Your task to perform on an android device: Open Google Maps and go to "Timeline" Image 0: 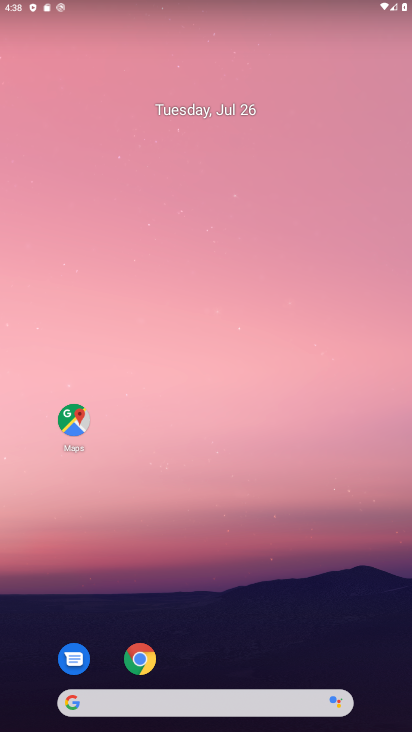
Step 0: drag from (221, 585) to (321, 8)
Your task to perform on an android device: Open Google Maps and go to "Timeline" Image 1: 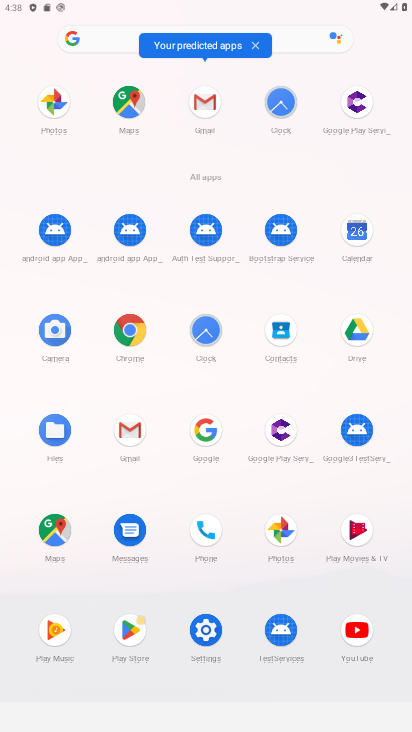
Step 1: click (53, 535)
Your task to perform on an android device: Open Google Maps and go to "Timeline" Image 2: 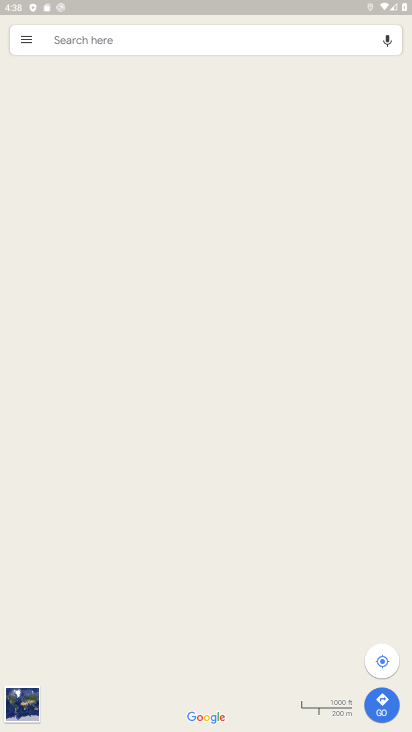
Step 2: click (25, 30)
Your task to perform on an android device: Open Google Maps and go to "Timeline" Image 3: 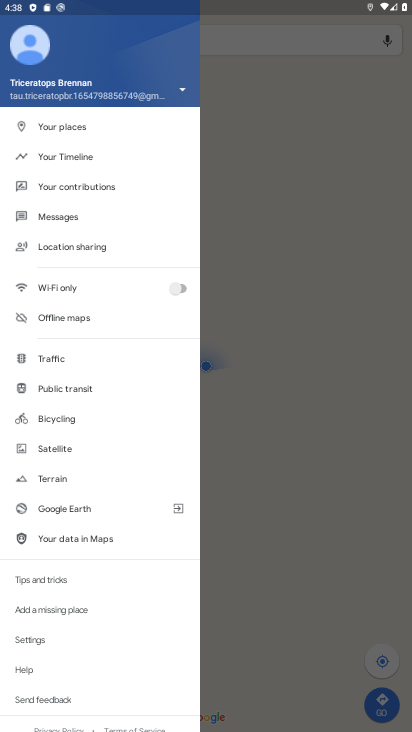
Step 3: click (80, 155)
Your task to perform on an android device: Open Google Maps and go to "Timeline" Image 4: 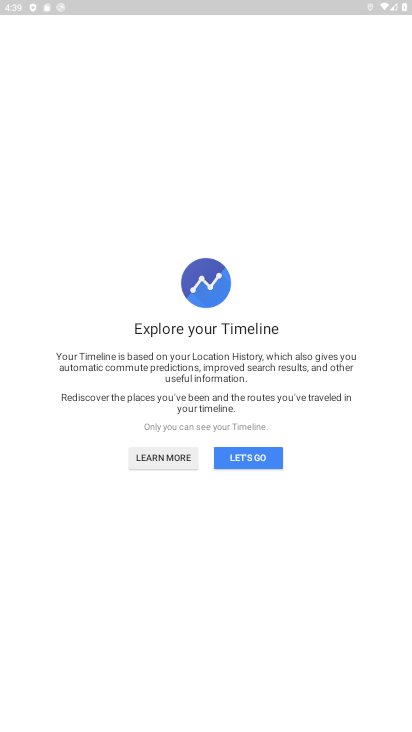
Step 4: click (260, 454)
Your task to perform on an android device: Open Google Maps and go to "Timeline" Image 5: 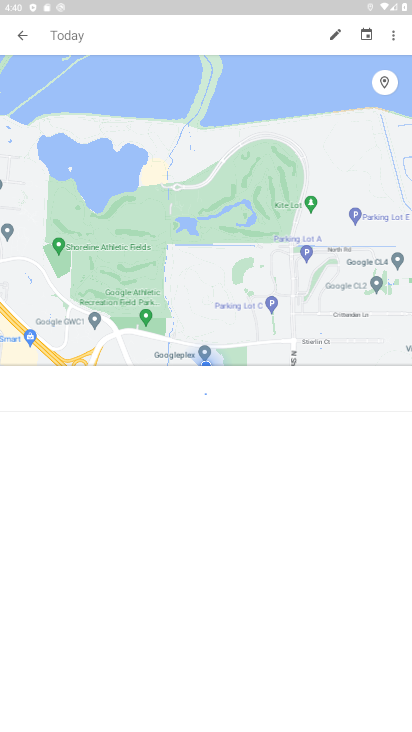
Step 5: task complete